Your task to perform on an android device: Open Yahoo.com Image 0: 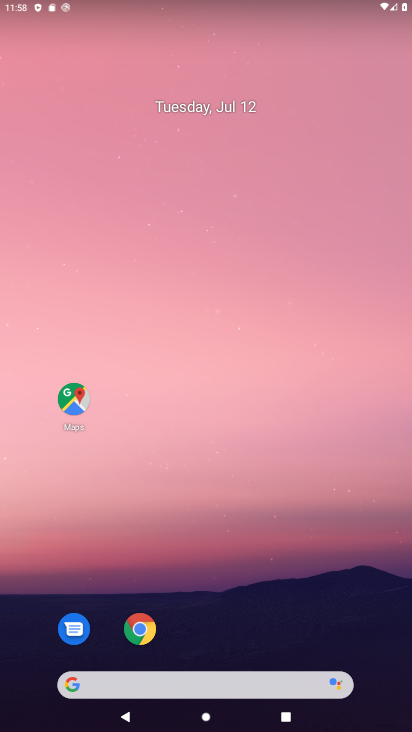
Step 0: drag from (200, 648) to (202, 586)
Your task to perform on an android device: Open Yahoo.com Image 1: 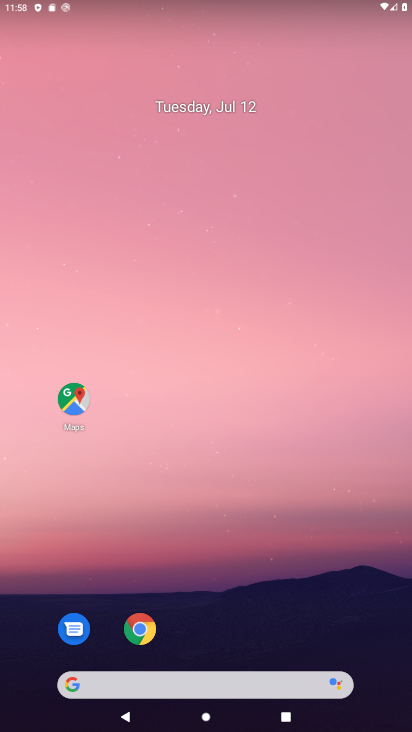
Step 1: click (145, 636)
Your task to perform on an android device: Open Yahoo.com Image 2: 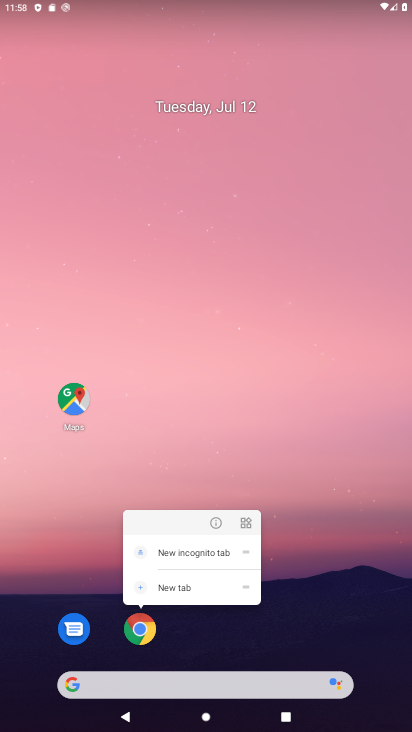
Step 2: click (145, 622)
Your task to perform on an android device: Open Yahoo.com Image 3: 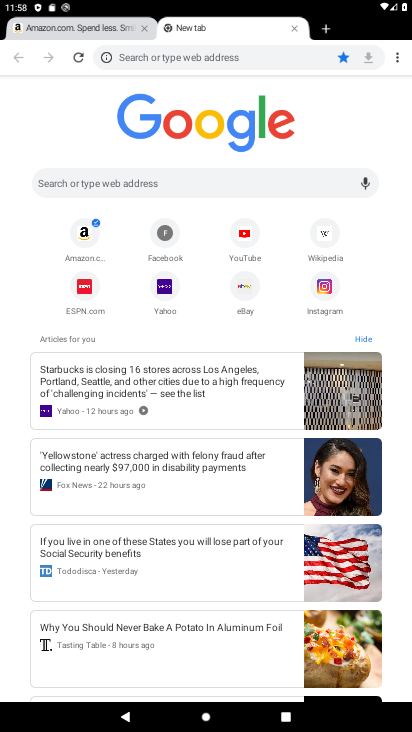
Step 3: click (158, 289)
Your task to perform on an android device: Open Yahoo.com Image 4: 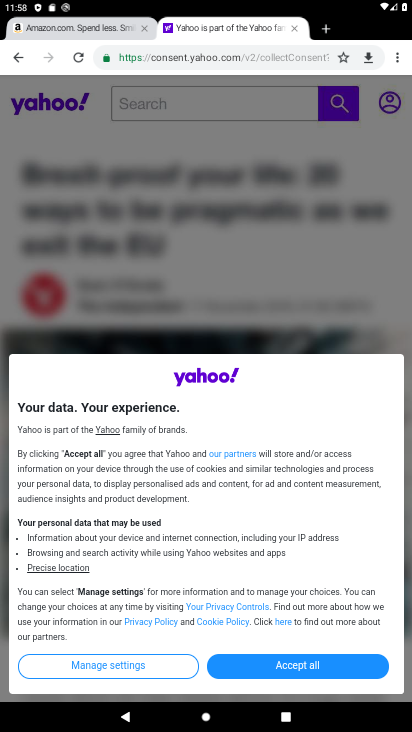
Step 4: task complete